Your task to perform on an android device: What's the weather today? Image 0: 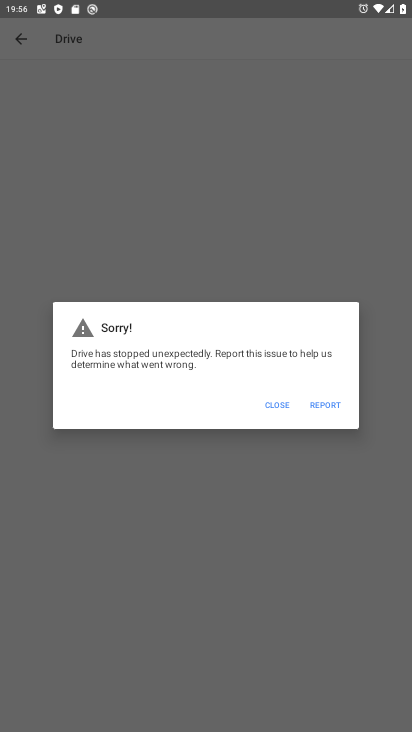
Step 0: click (269, 409)
Your task to perform on an android device: What's the weather today? Image 1: 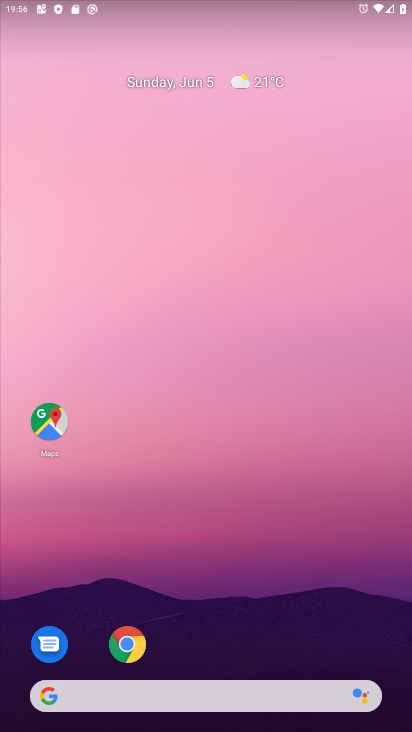
Step 1: click (149, 695)
Your task to perform on an android device: What's the weather today? Image 2: 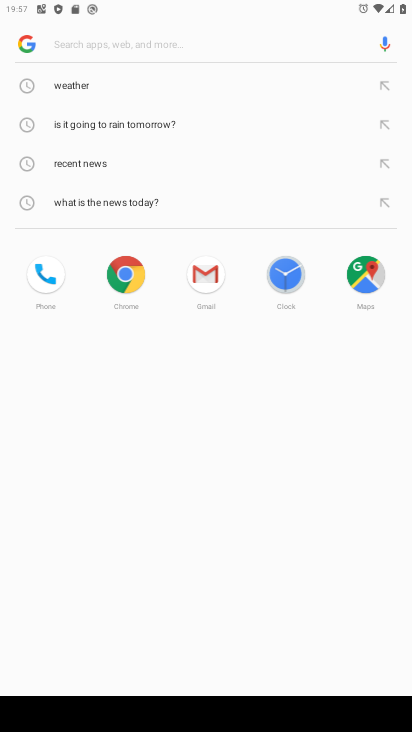
Step 2: click (90, 79)
Your task to perform on an android device: What's the weather today? Image 3: 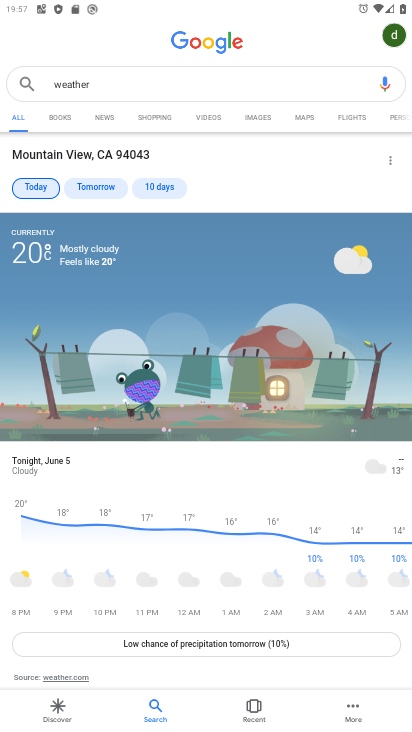
Step 3: task complete